Your task to perform on an android device: move an email to a new category in the gmail app Image 0: 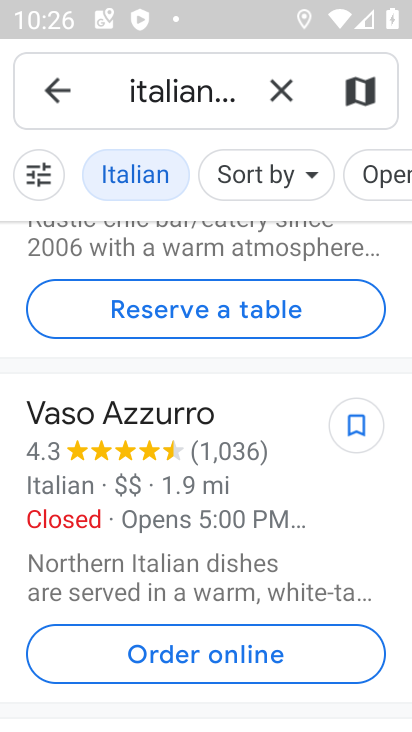
Step 0: click (63, 100)
Your task to perform on an android device: move an email to a new category in the gmail app Image 1: 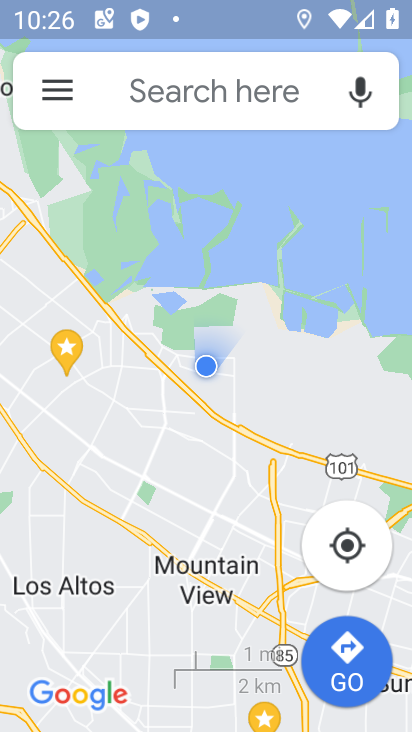
Step 1: press home button
Your task to perform on an android device: move an email to a new category in the gmail app Image 2: 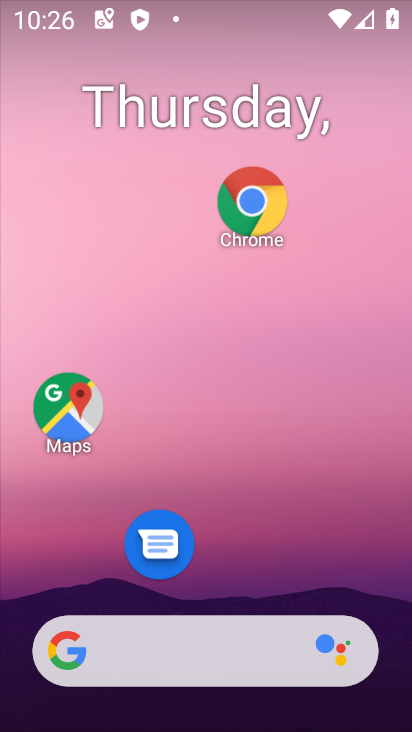
Step 2: drag from (211, 588) to (208, 98)
Your task to perform on an android device: move an email to a new category in the gmail app Image 3: 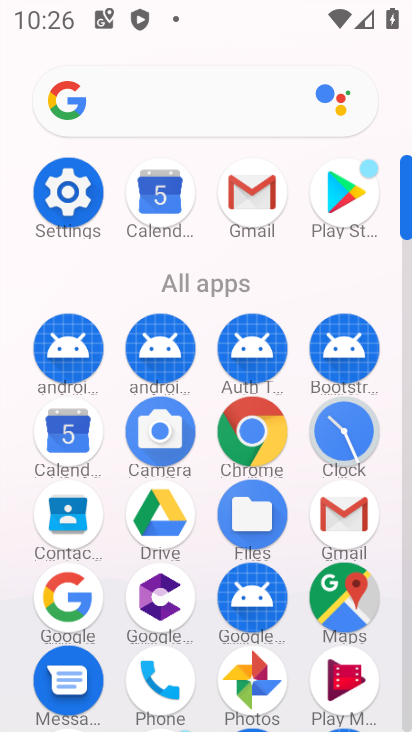
Step 3: click (254, 187)
Your task to perform on an android device: move an email to a new category in the gmail app Image 4: 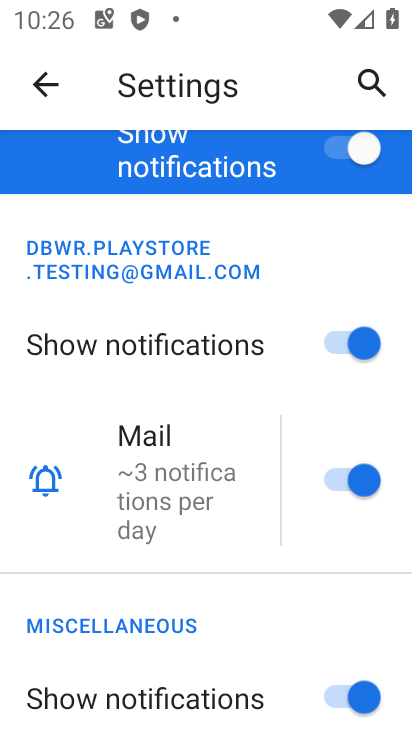
Step 4: click (58, 95)
Your task to perform on an android device: move an email to a new category in the gmail app Image 5: 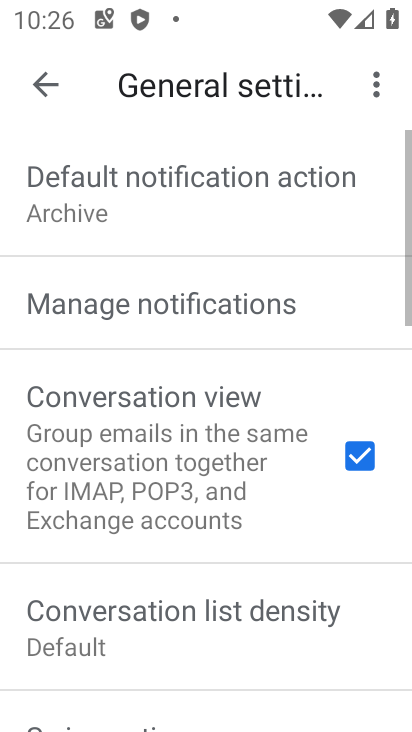
Step 5: click (58, 95)
Your task to perform on an android device: move an email to a new category in the gmail app Image 6: 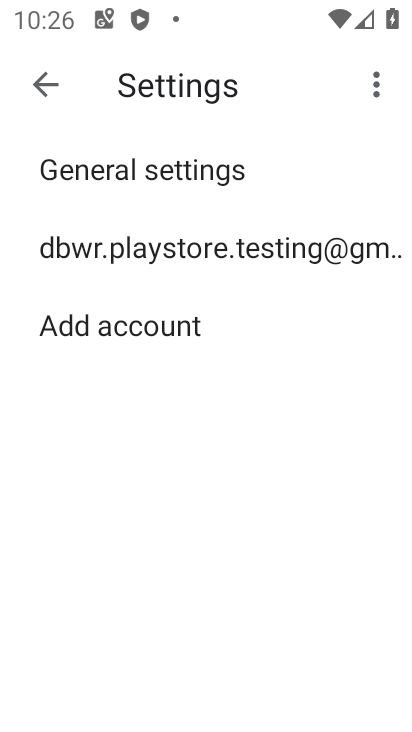
Step 6: click (58, 95)
Your task to perform on an android device: move an email to a new category in the gmail app Image 7: 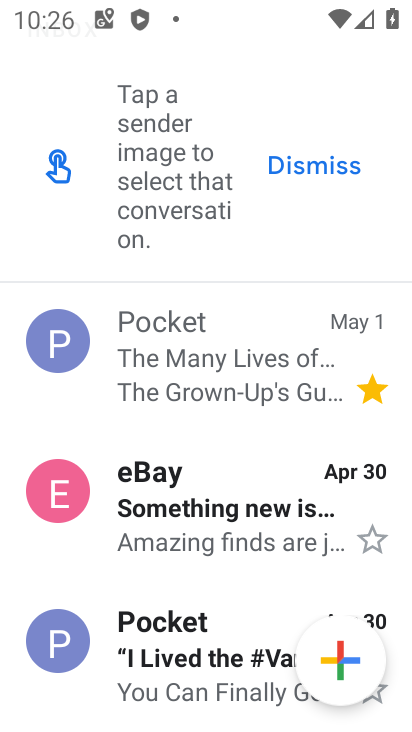
Step 7: click (50, 344)
Your task to perform on an android device: move an email to a new category in the gmail app Image 8: 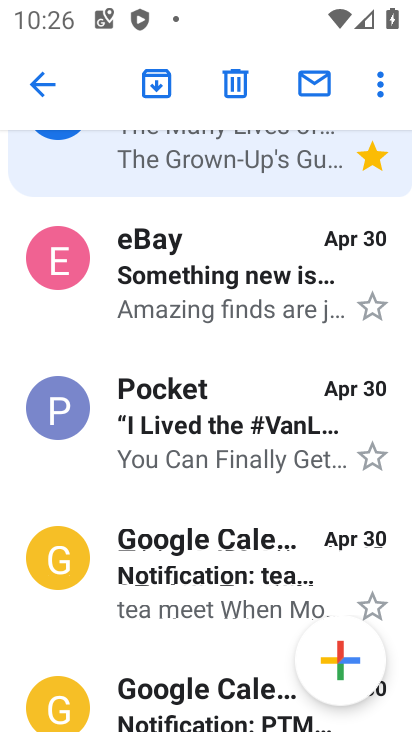
Step 8: drag from (199, 163) to (207, 720)
Your task to perform on an android device: move an email to a new category in the gmail app Image 9: 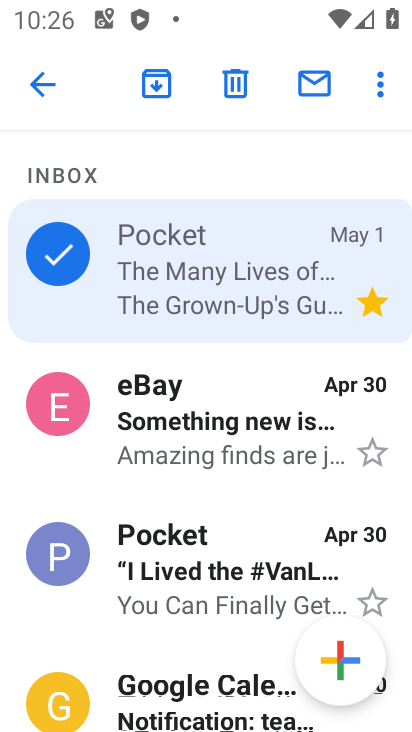
Step 9: click (379, 83)
Your task to perform on an android device: move an email to a new category in the gmail app Image 10: 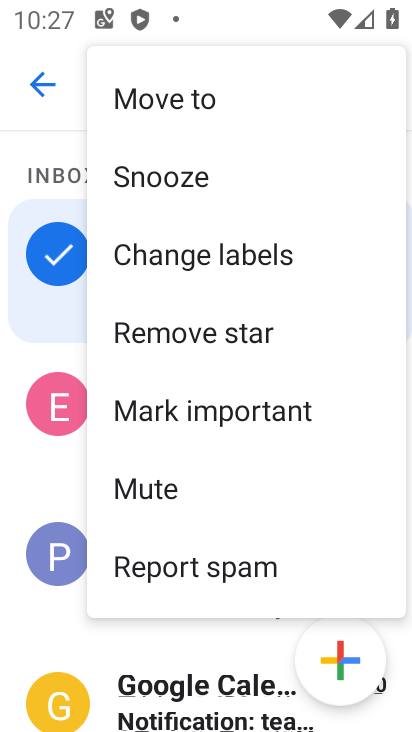
Step 10: click (214, 91)
Your task to perform on an android device: move an email to a new category in the gmail app Image 11: 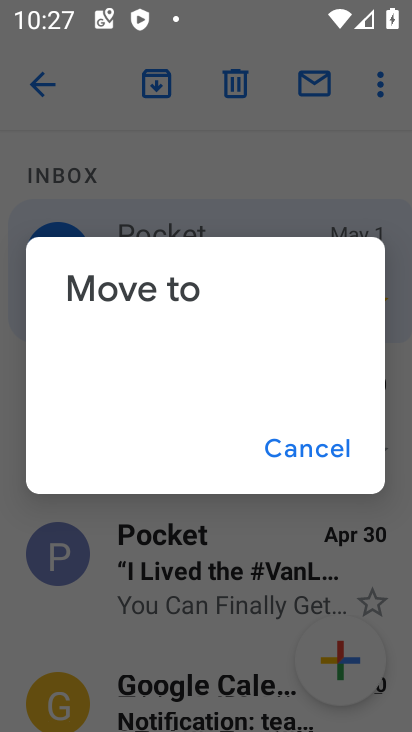
Step 11: click (182, 392)
Your task to perform on an android device: move an email to a new category in the gmail app Image 12: 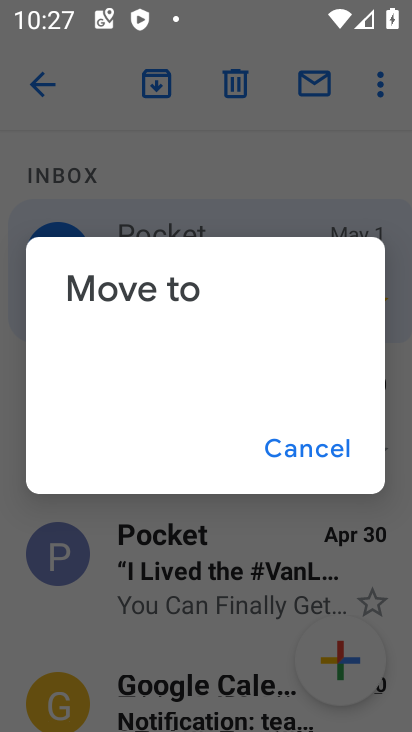
Step 12: task complete